Your task to perform on an android device: Search for pizza restaurants on Maps Image 0: 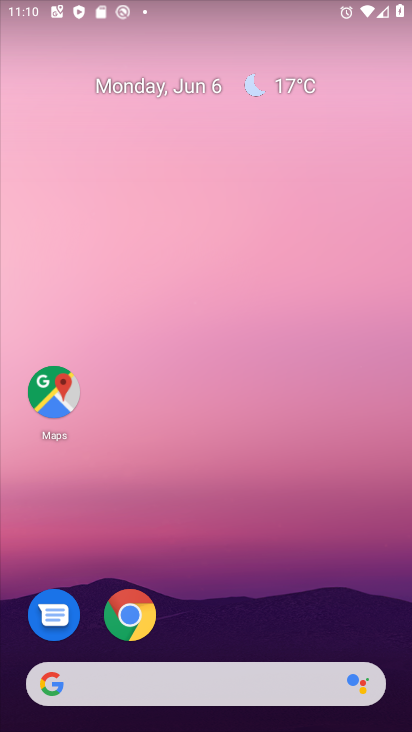
Step 0: click (56, 386)
Your task to perform on an android device: Search for pizza restaurants on Maps Image 1: 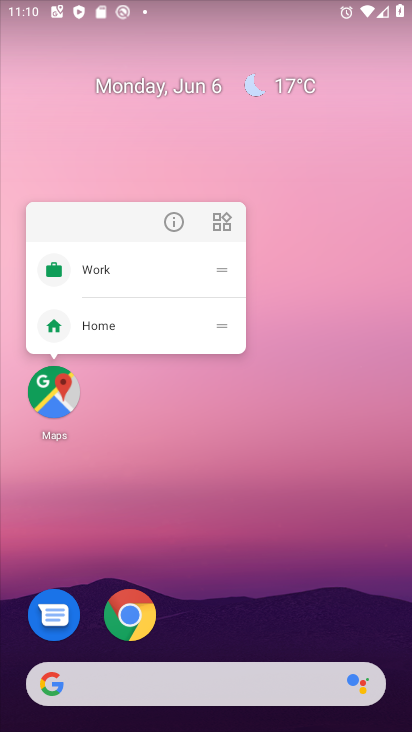
Step 1: click (55, 386)
Your task to perform on an android device: Search for pizza restaurants on Maps Image 2: 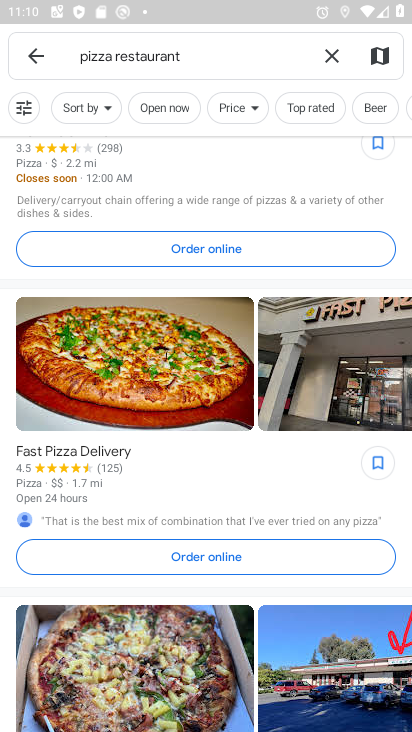
Step 2: task complete